Your task to perform on an android device: Go to ESPN.com Image 0: 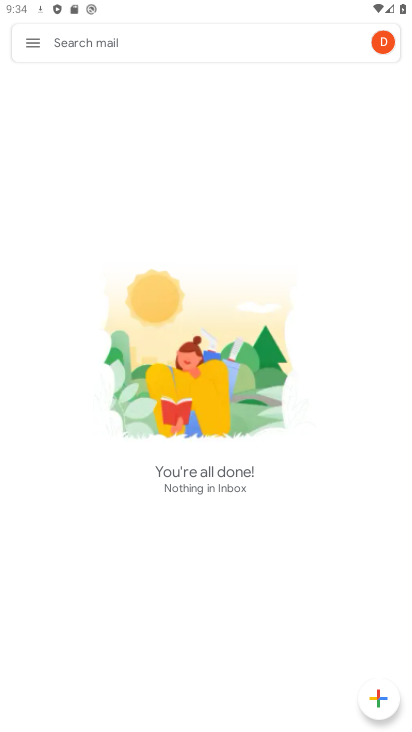
Step 0: press home button
Your task to perform on an android device: Go to ESPN.com Image 1: 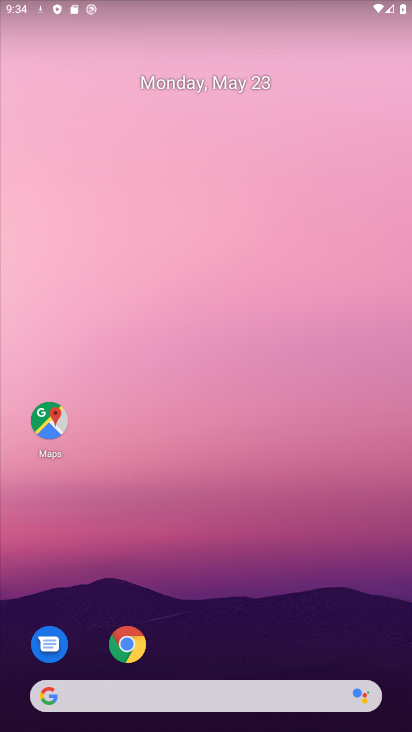
Step 1: drag from (221, 713) to (145, 127)
Your task to perform on an android device: Go to ESPN.com Image 2: 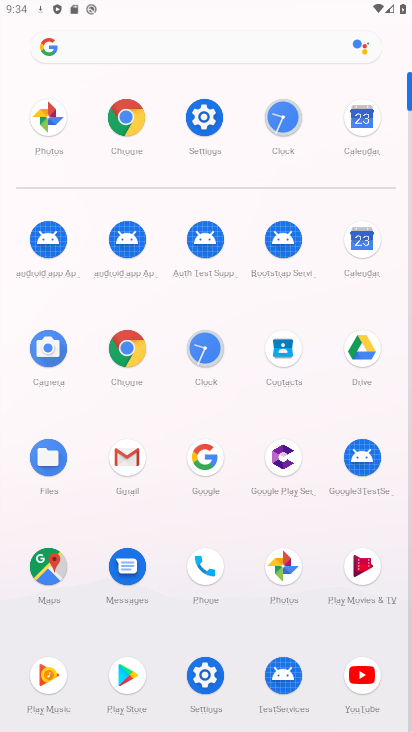
Step 2: click (122, 121)
Your task to perform on an android device: Go to ESPN.com Image 3: 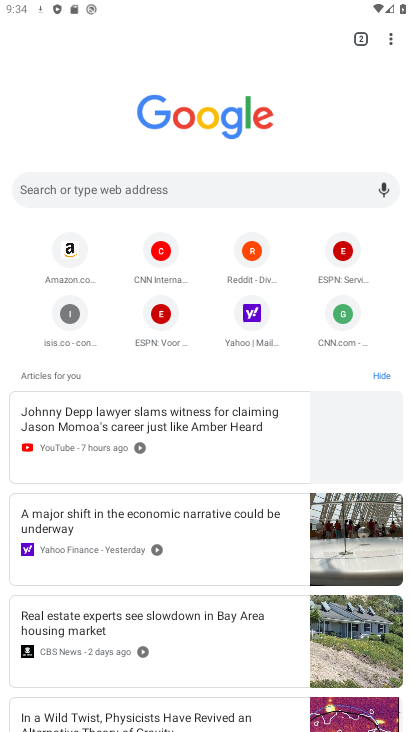
Step 3: click (166, 324)
Your task to perform on an android device: Go to ESPN.com Image 4: 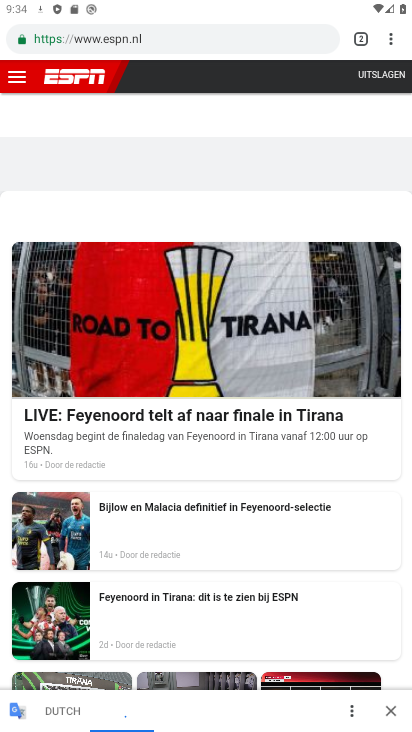
Step 4: task complete